Your task to perform on an android device: View the shopping cart on walmart. Add razer blade to the cart on walmart Image 0: 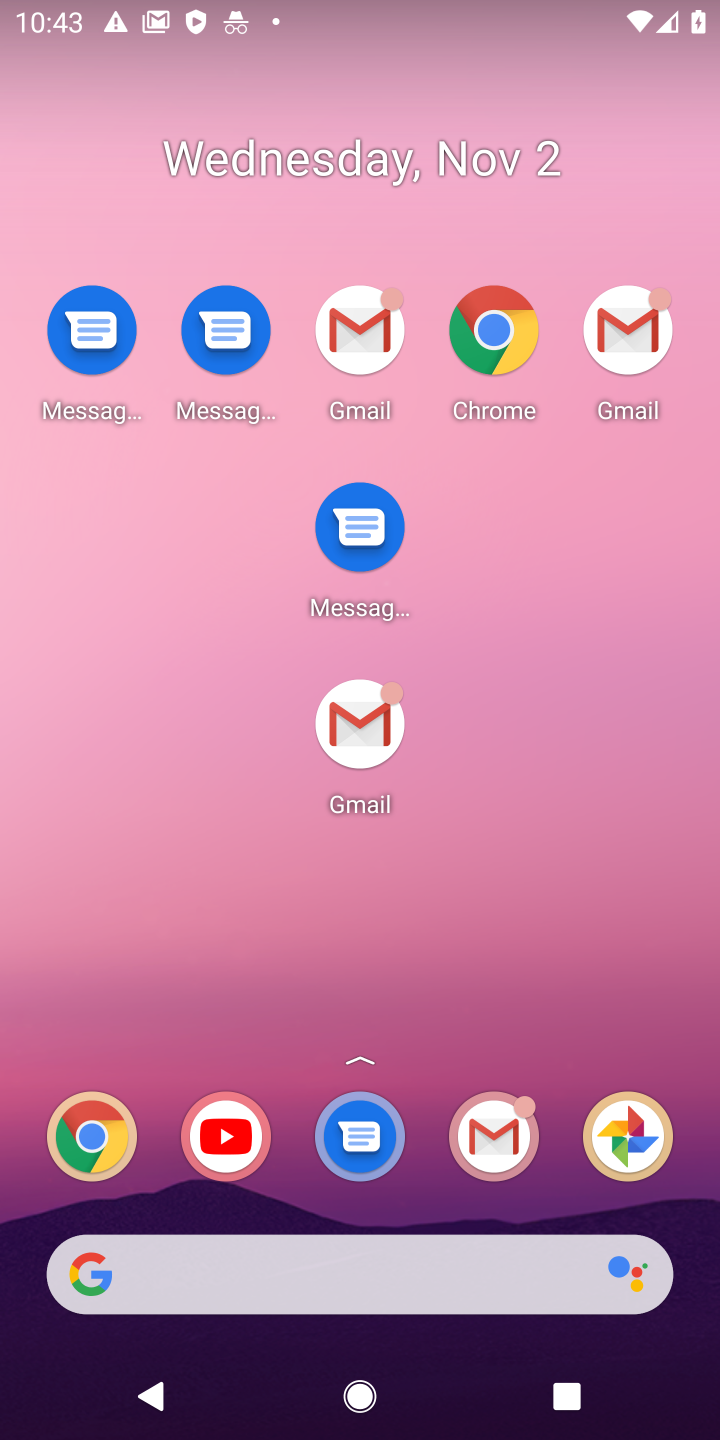
Step 0: drag from (323, 874) to (331, 309)
Your task to perform on an android device: View the shopping cart on walmart. Add razer blade to the cart on walmart Image 1: 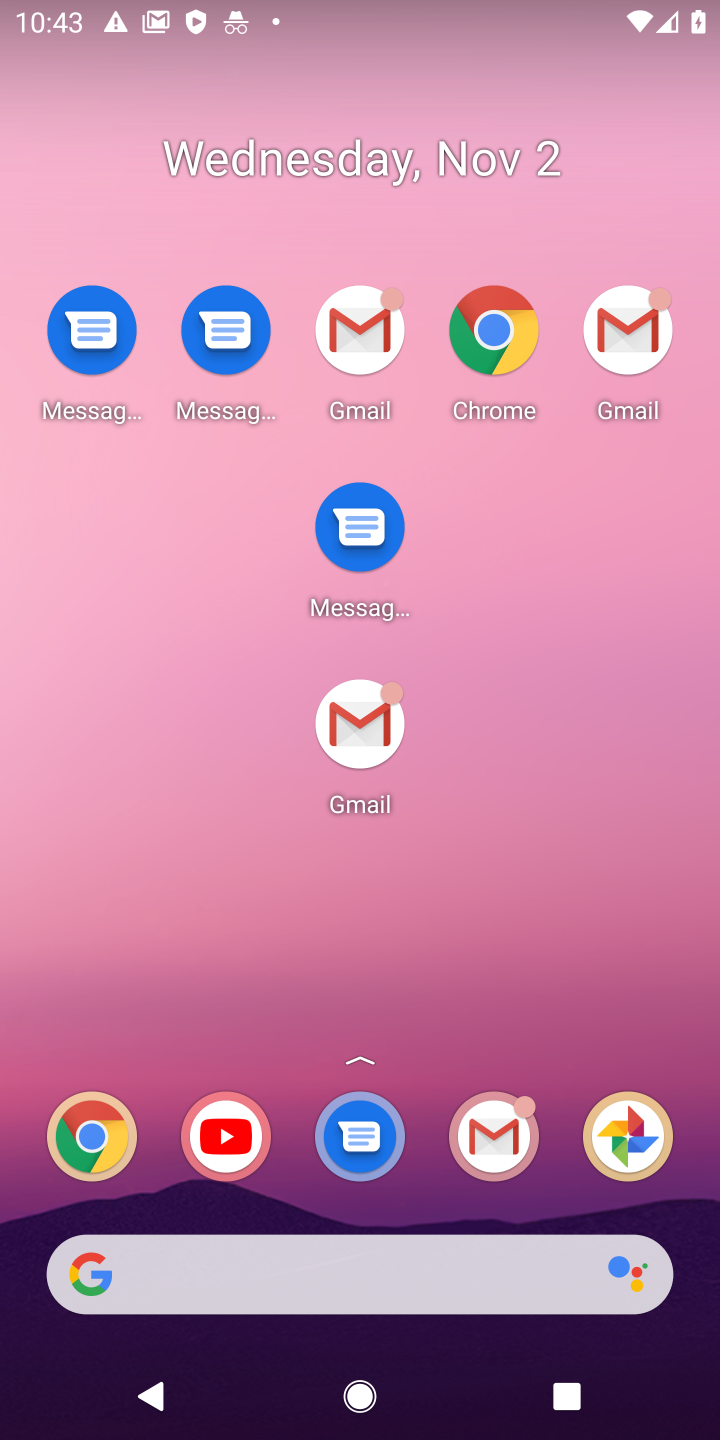
Step 1: drag from (392, 1051) to (409, 308)
Your task to perform on an android device: View the shopping cart on walmart. Add razer blade to the cart on walmart Image 2: 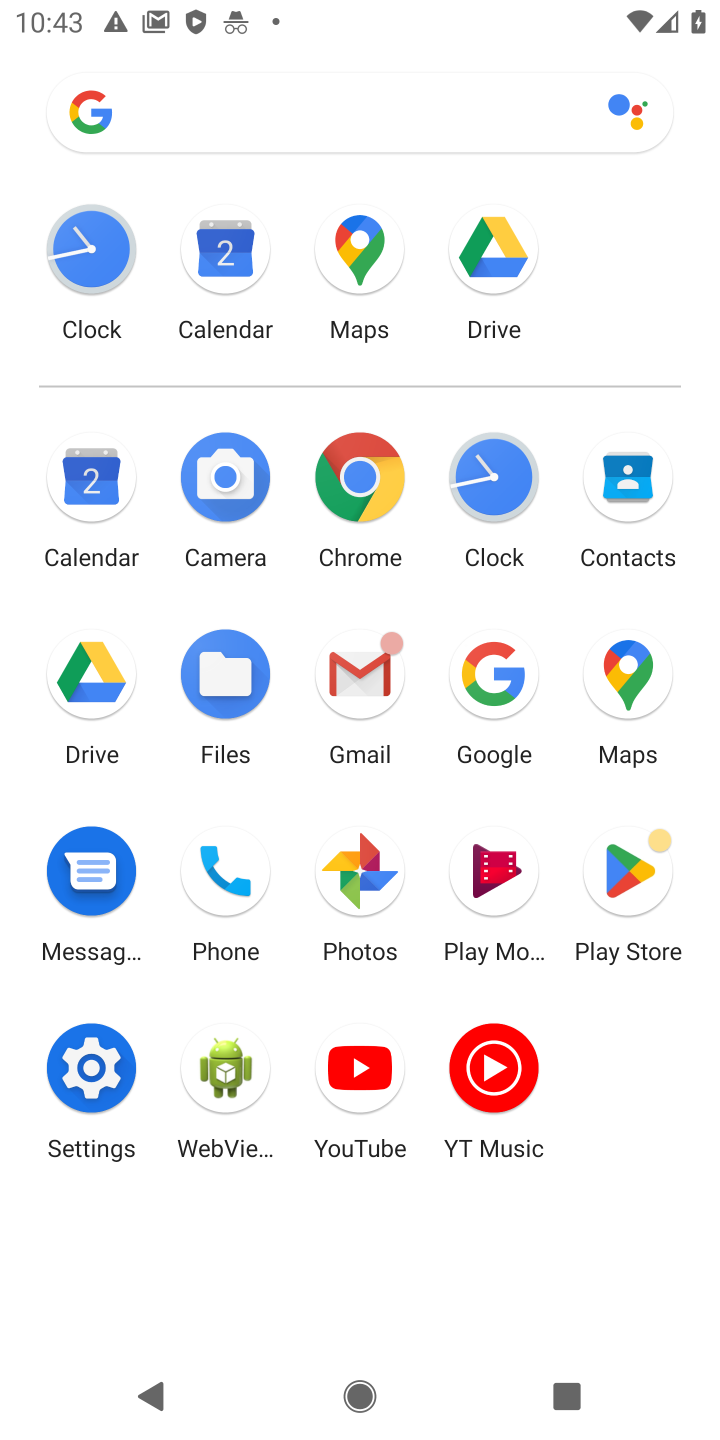
Step 2: click (487, 668)
Your task to perform on an android device: View the shopping cart on walmart. Add razer blade to the cart on walmart Image 3: 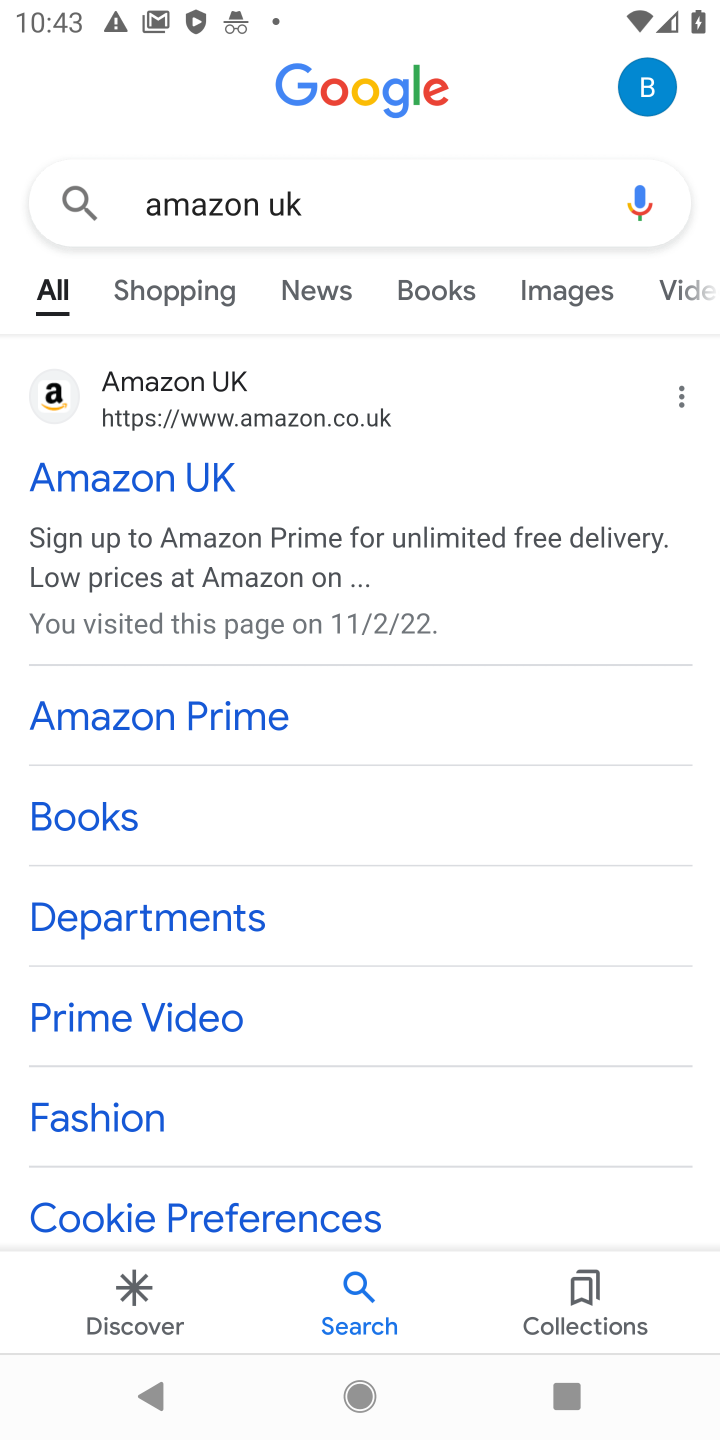
Step 3: click (367, 200)
Your task to perform on an android device: View the shopping cart on walmart. Add razer blade to the cart on walmart Image 4: 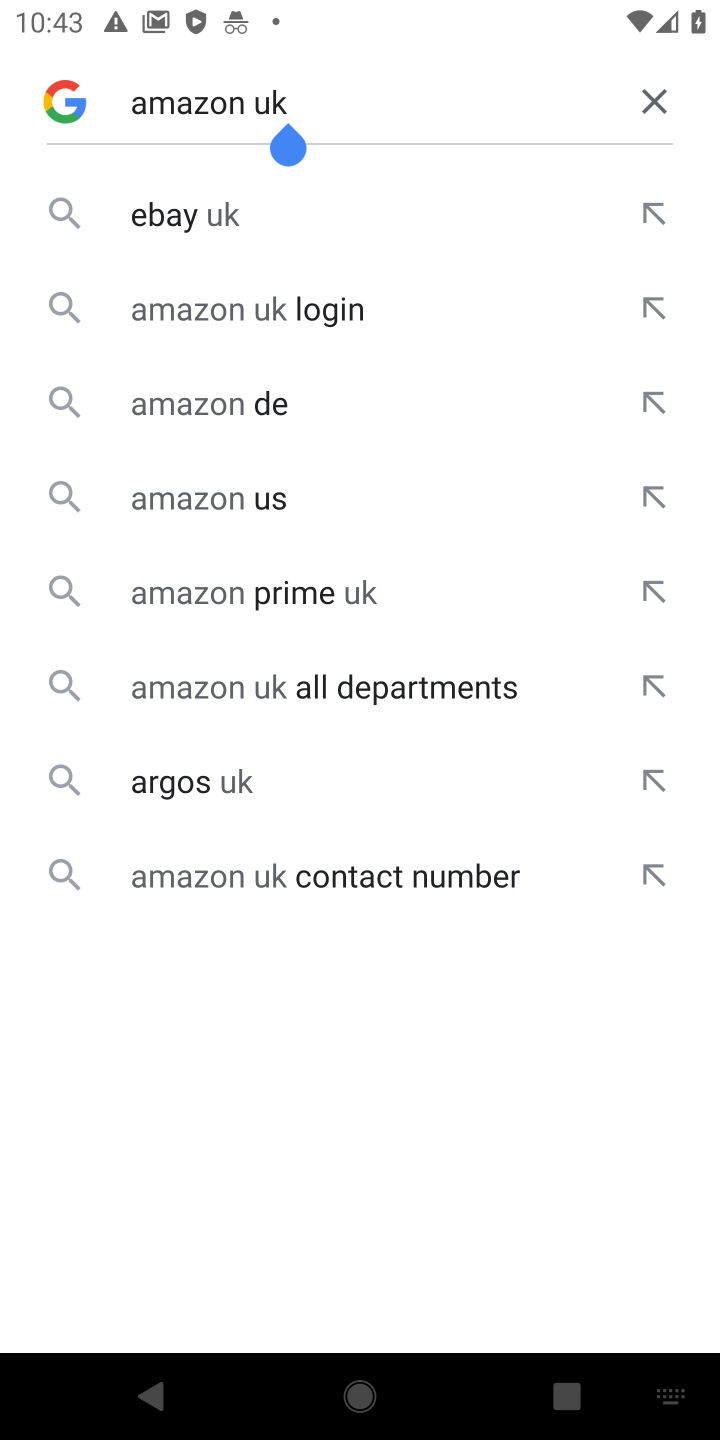
Step 4: click (656, 87)
Your task to perform on an android device: View the shopping cart on walmart. Add razer blade to the cart on walmart Image 5: 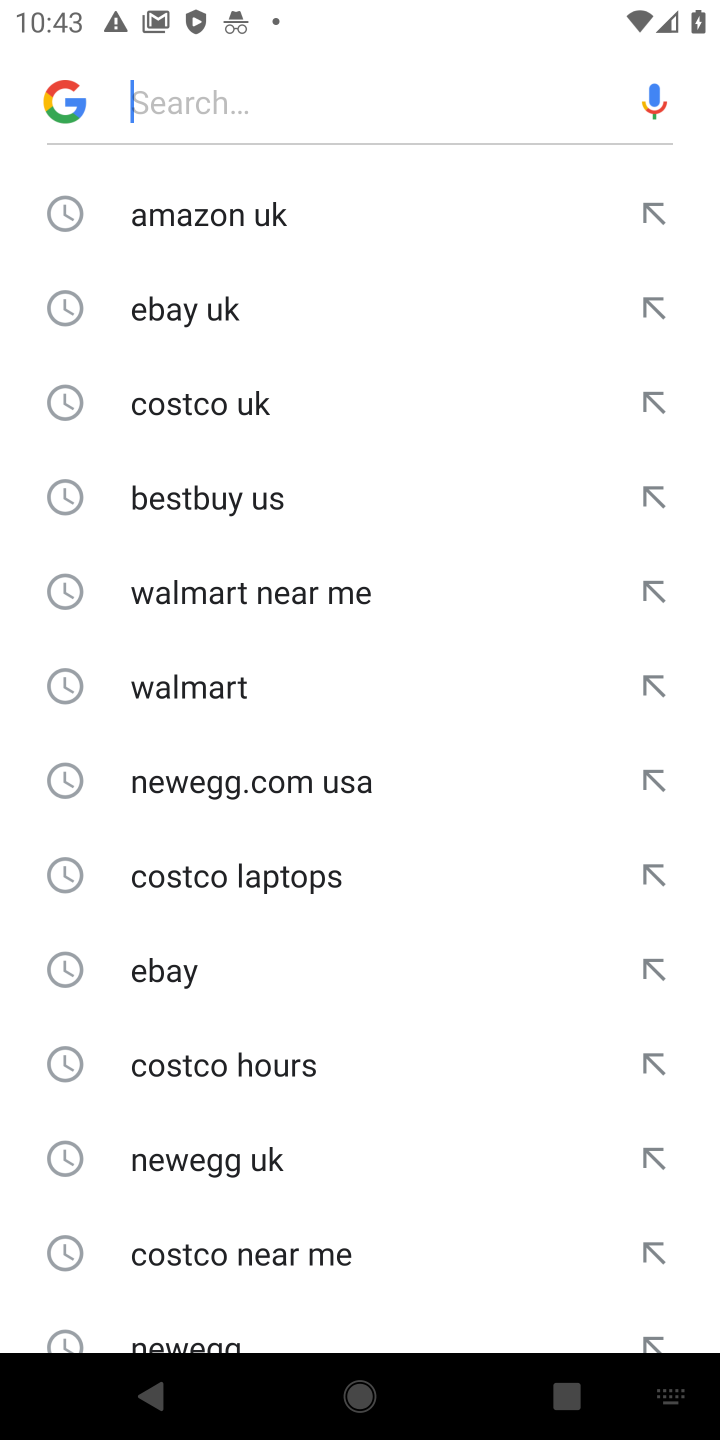
Step 5: click (281, 120)
Your task to perform on an android device: View the shopping cart on walmart. Add razer blade to the cart on walmart Image 6: 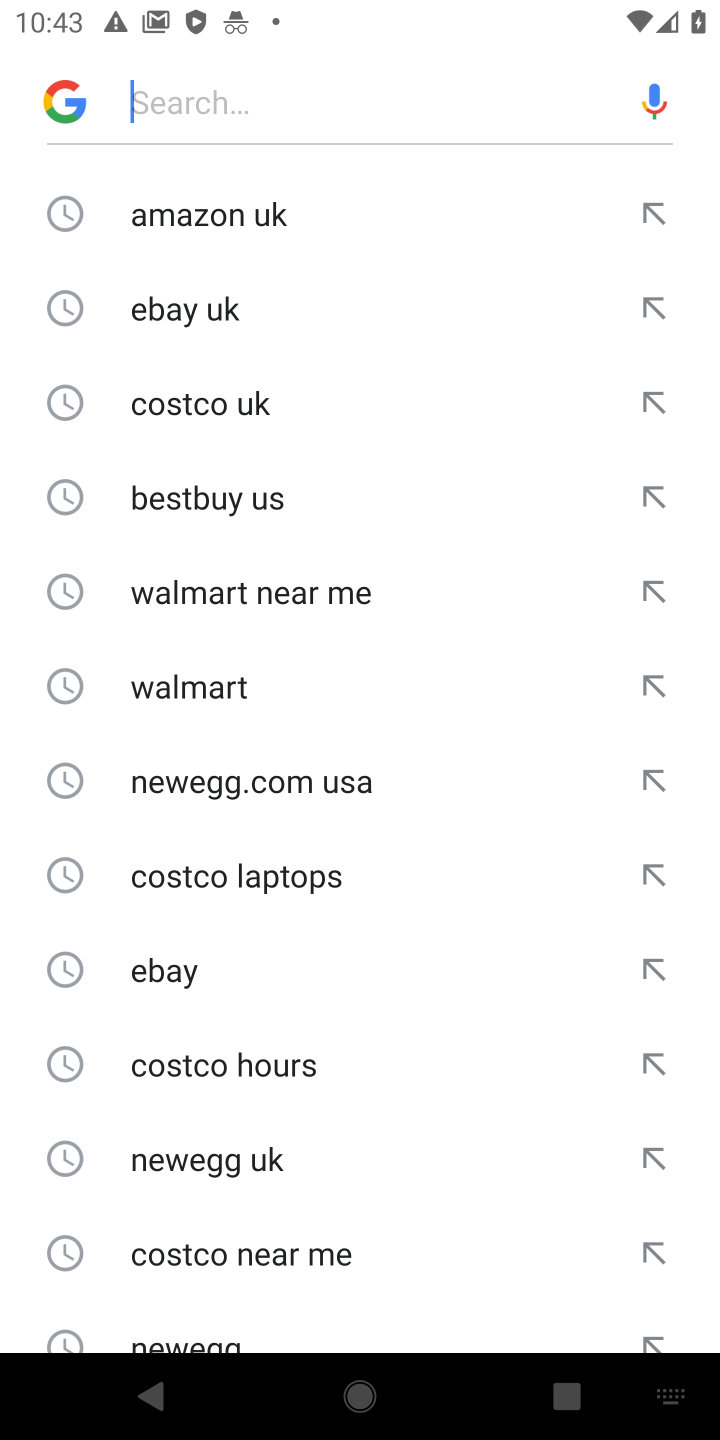
Step 6: click (285, 103)
Your task to perform on an android device: View the shopping cart on walmart. Add razer blade to the cart on walmart Image 7: 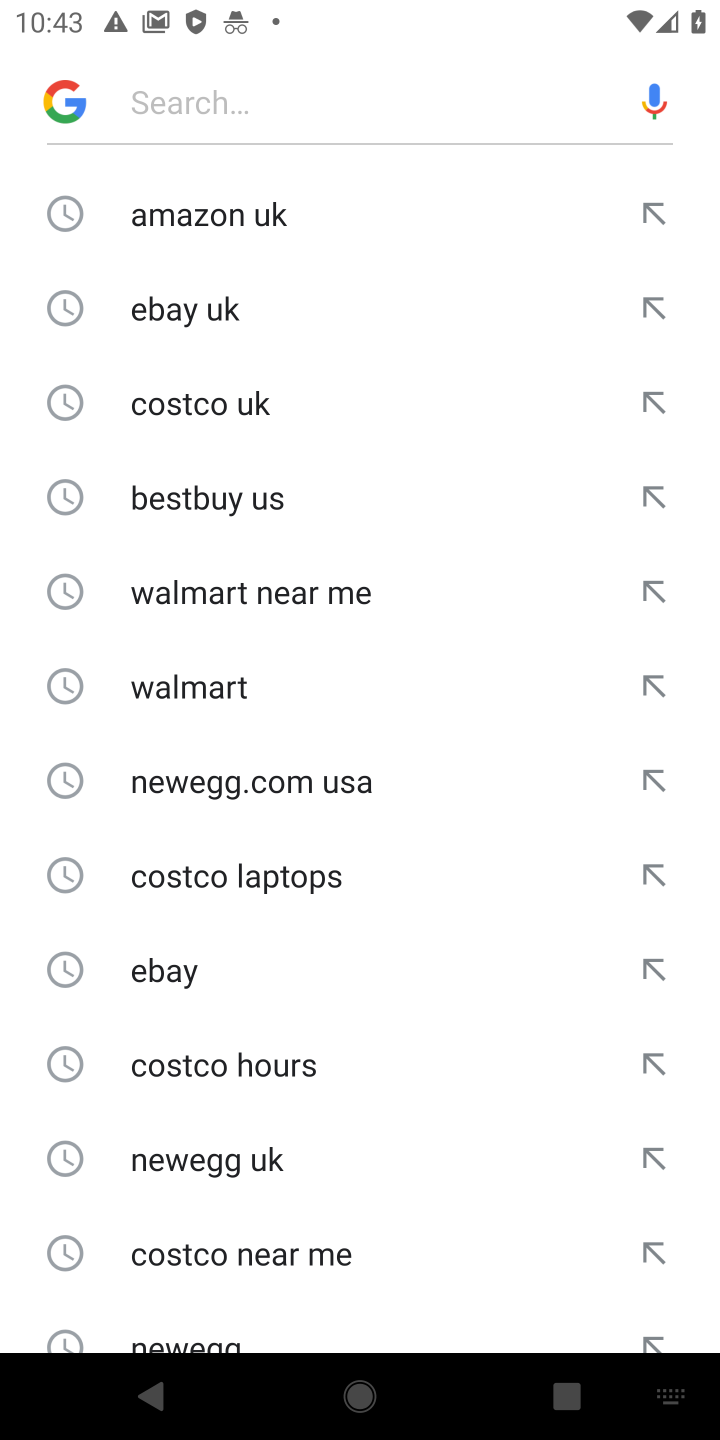
Step 7: type "walmart "
Your task to perform on an android device: View the shopping cart on walmart. Add razer blade to the cart on walmart Image 8: 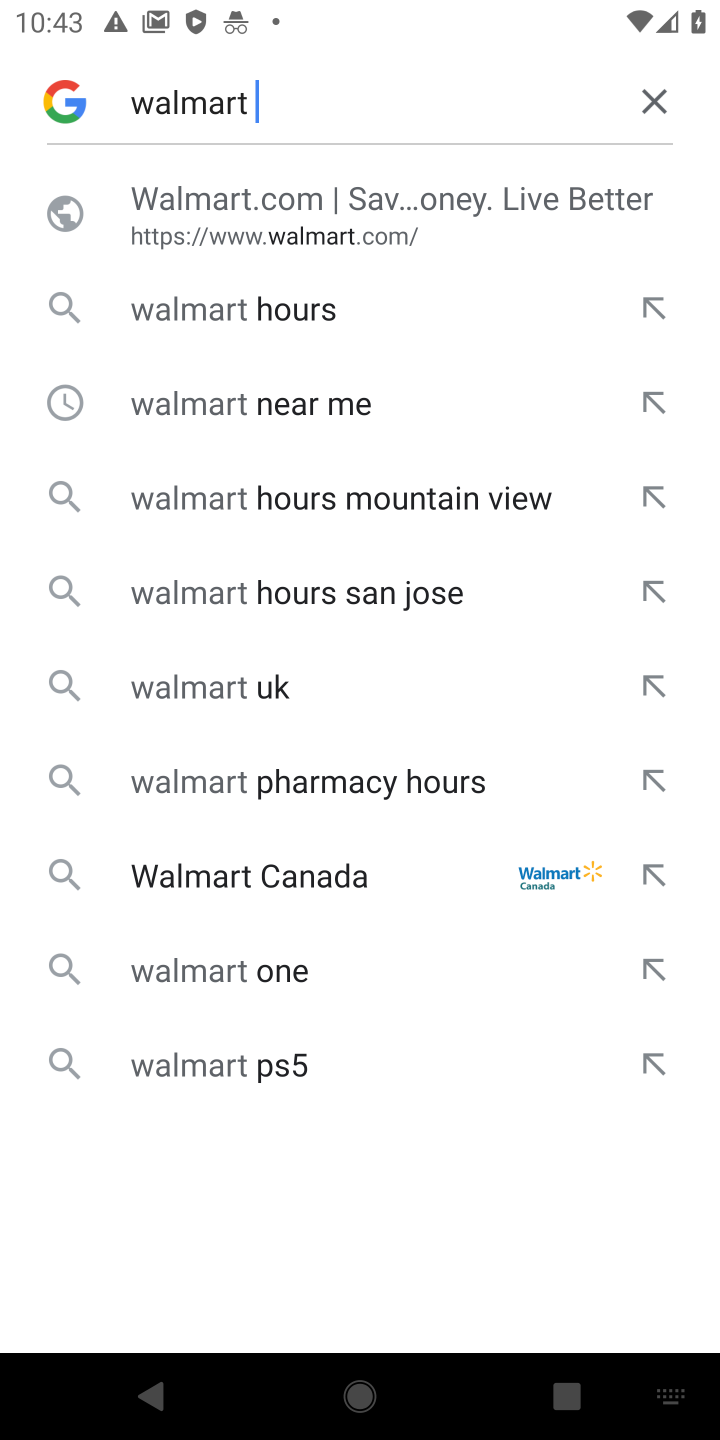
Step 8: click (288, 155)
Your task to perform on an android device: View the shopping cart on walmart. Add razer blade to the cart on walmart Image 9: 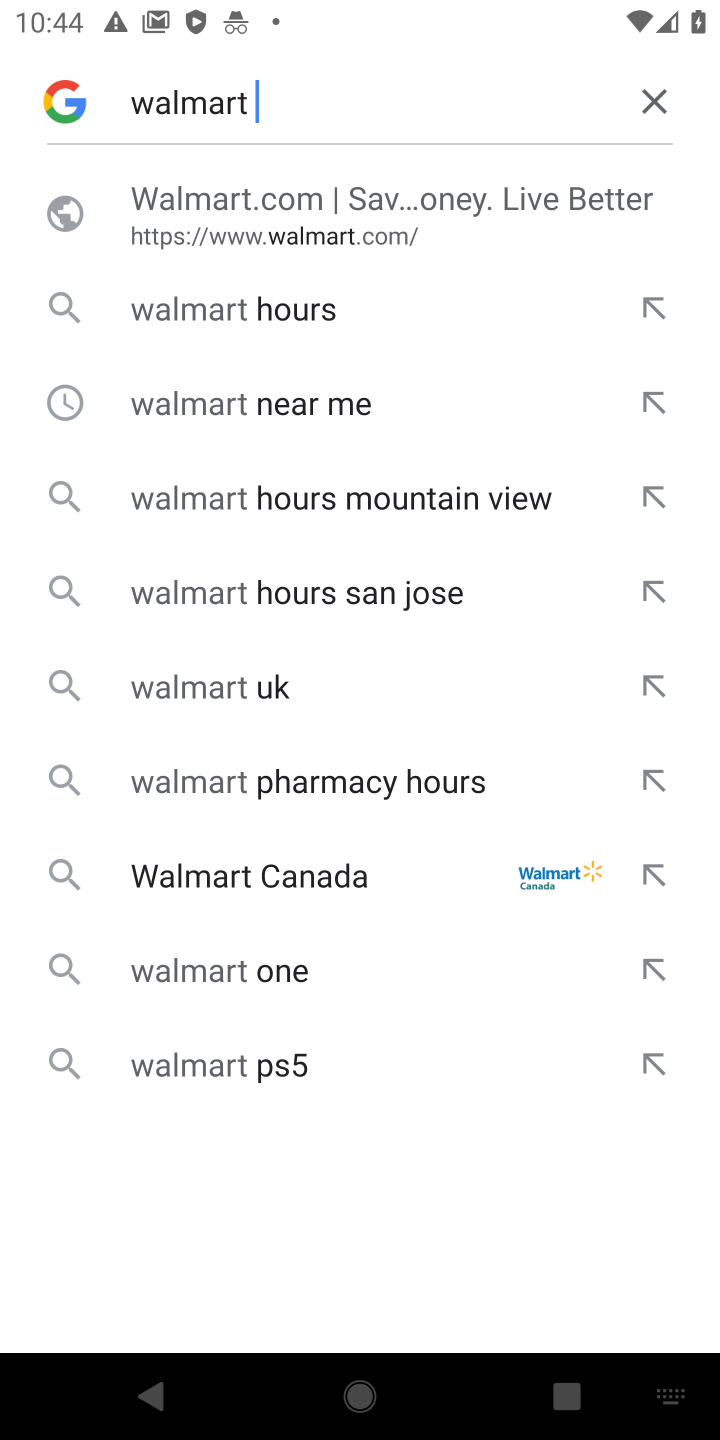
Step 9: click (327, 195)
Your task to perform on an android device: View the shopping cart on walmart. Add razer blade to the cart on walmart Image 10: 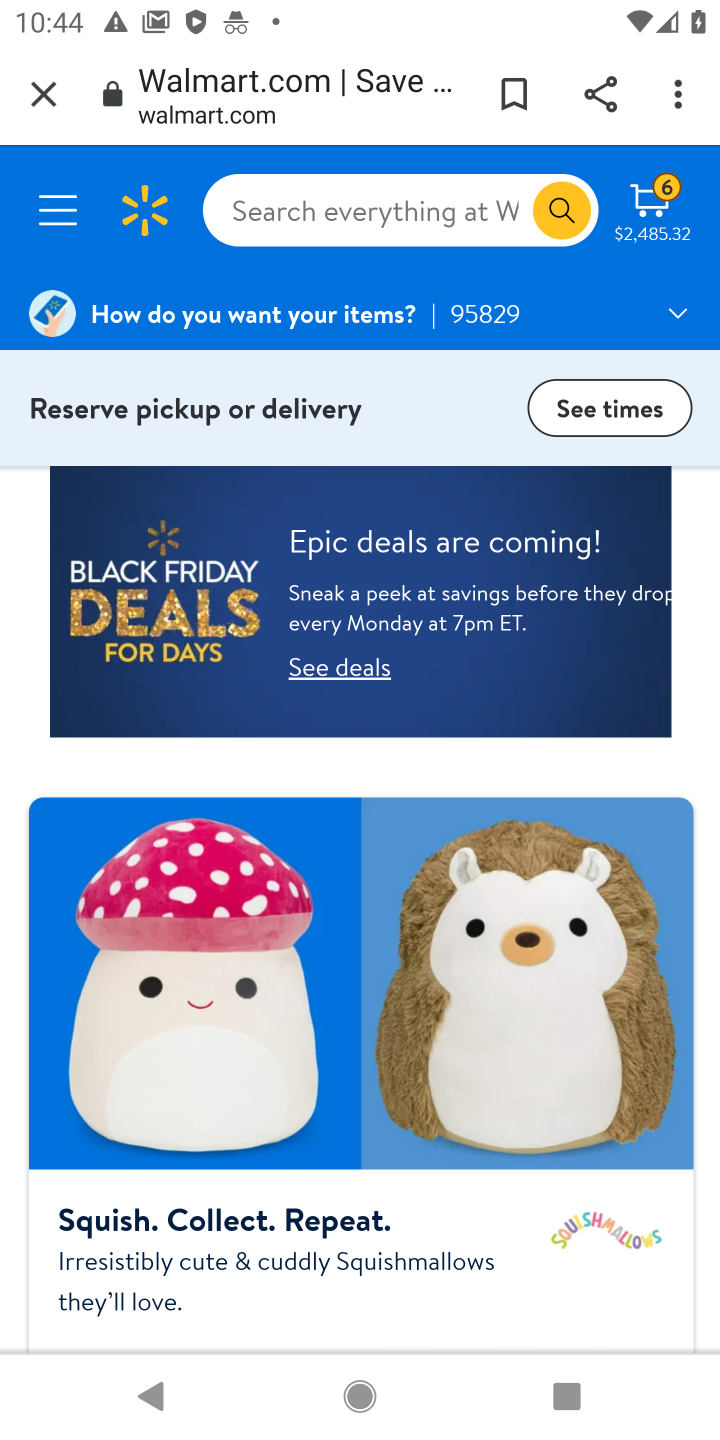
Step 10: click (306, 195)
Your task to perform on an android device: View the shopping cart on walmart. Add razer blade to the cart on walmart Image 11: 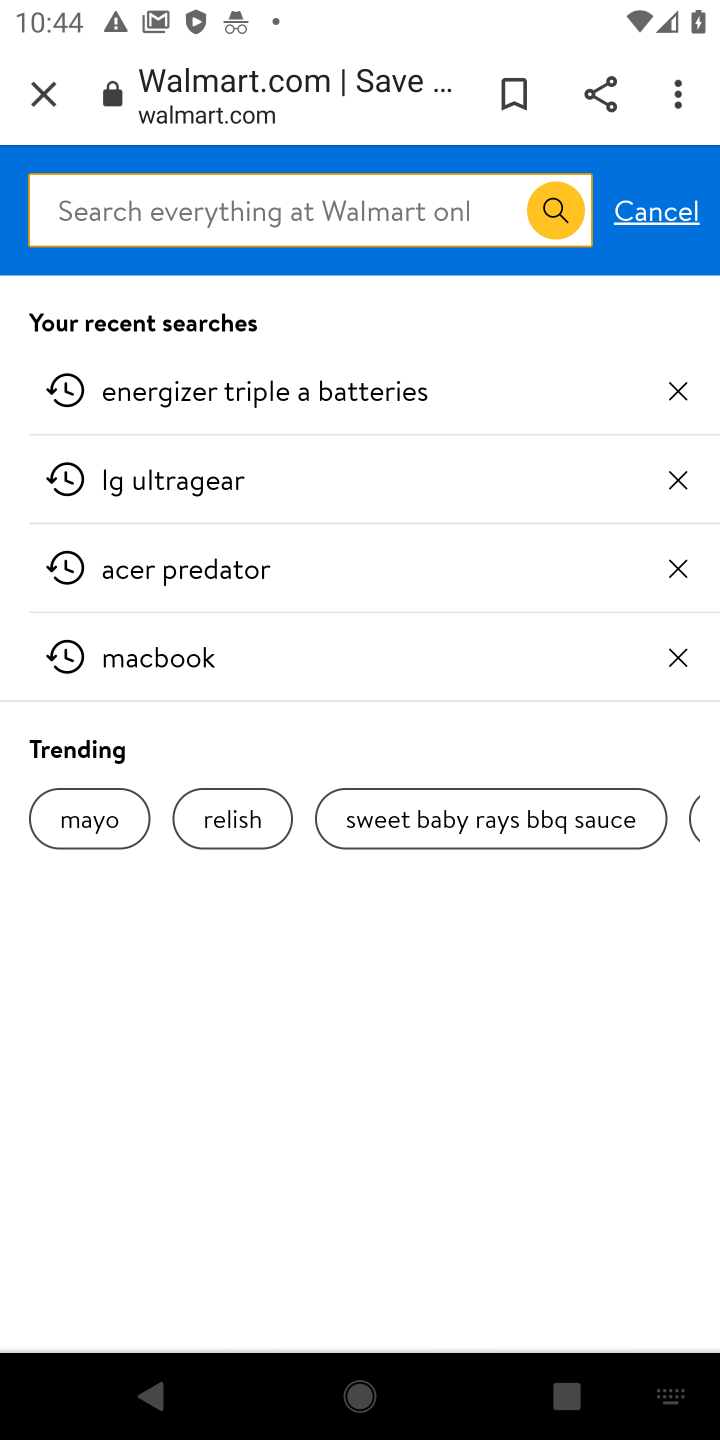
Step 11: click (315, 203)
Your task to perform on an android device: View the shopping cart on walmart. Add razer blade to the cart on walmart Image 12: 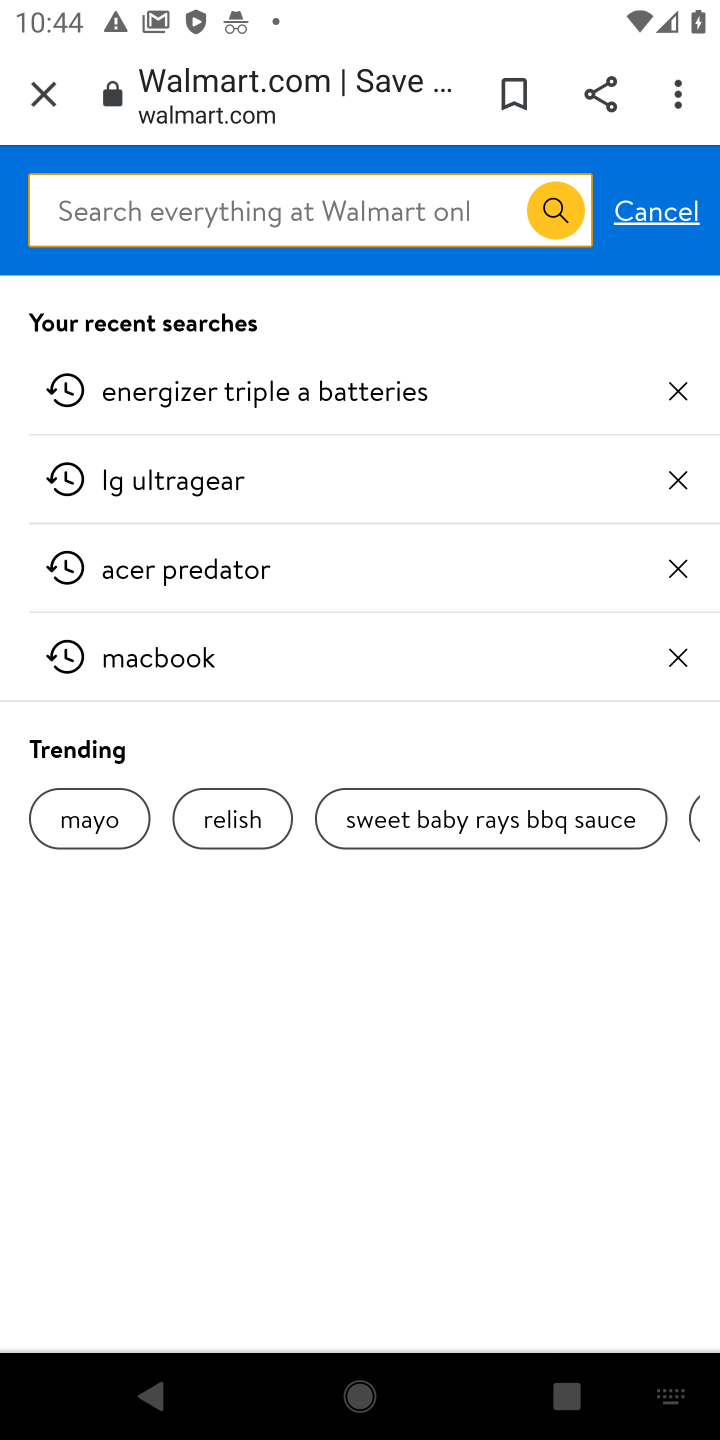
Step 12: type " razer blade "
Your task to perform on an android device: View the shopping cart on walmart. Add razer blade to the cart on walmart Image 13: 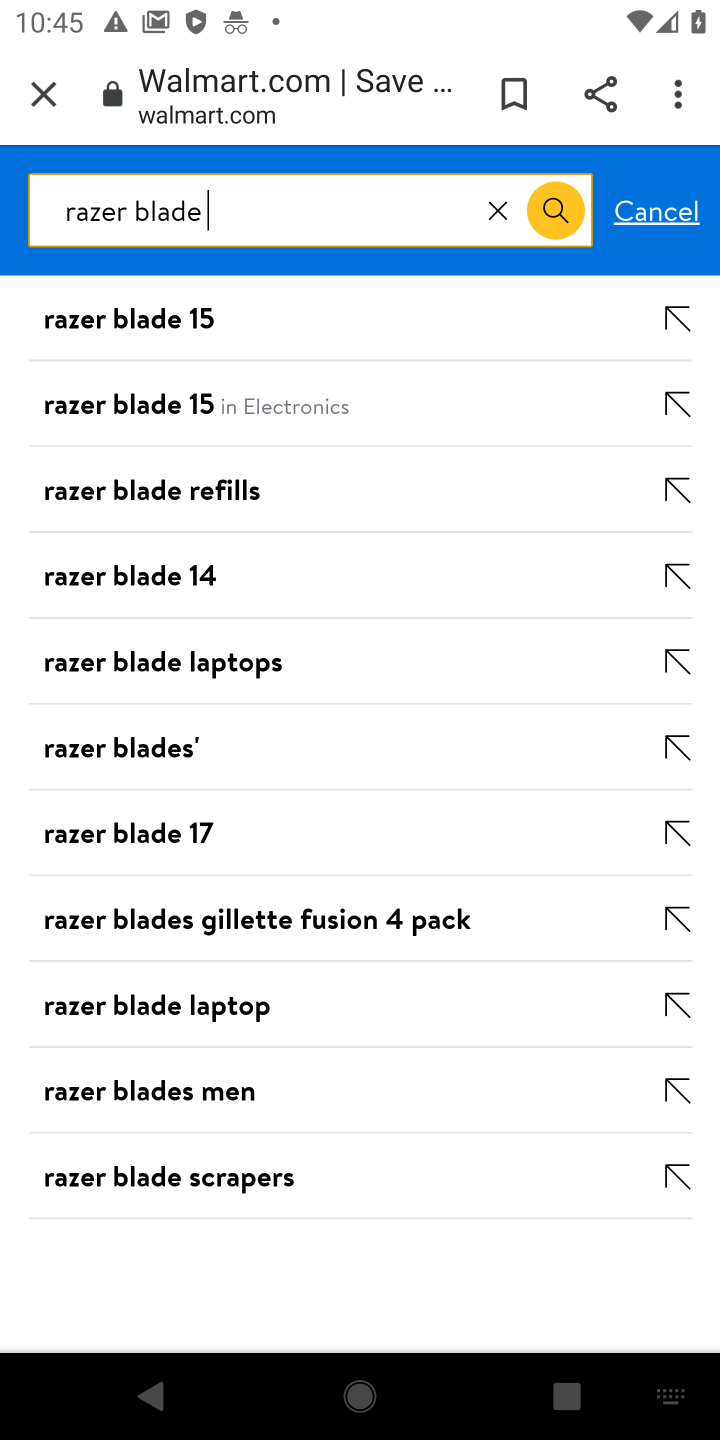
Step 13: click (112, 310)
Your task to perform on an android device: View the shopping cart on walmart. Add razer blade to the cart on walmart Image 14: 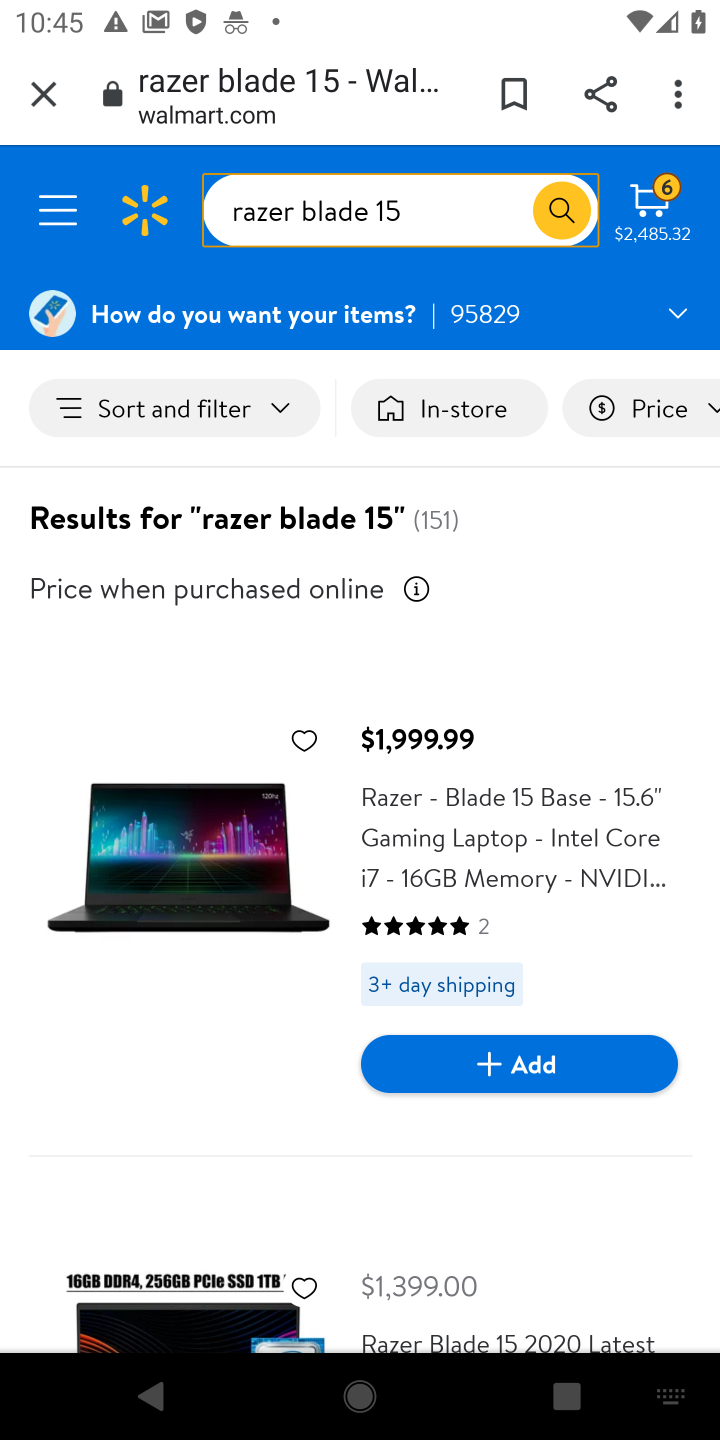
Step 14: click (551, 1077)
Your task to perform on an android device: View the shopping cart on walmart. Add razer blade to the cart on walmart Image 15: 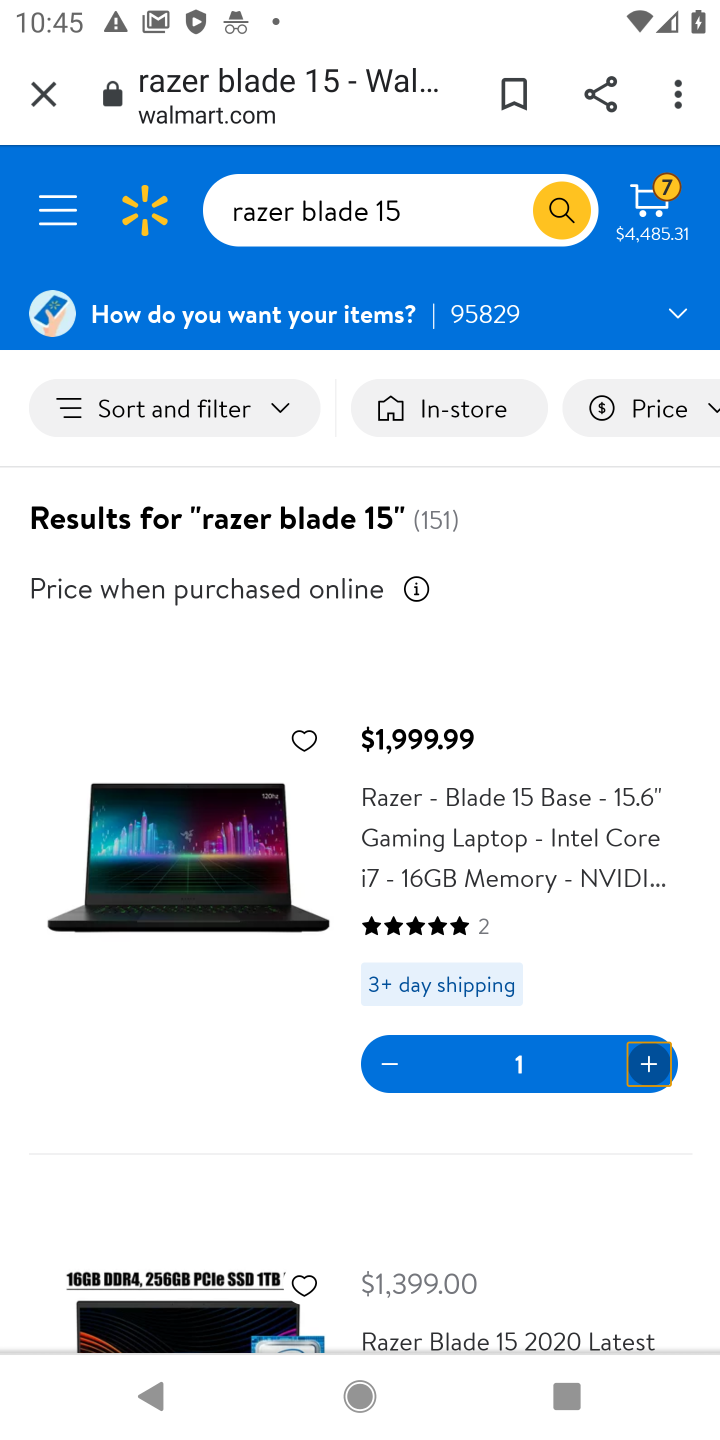
Step 15: task complete